Your task to perform on an android device: turn off data saver in the chrome app Image 0: 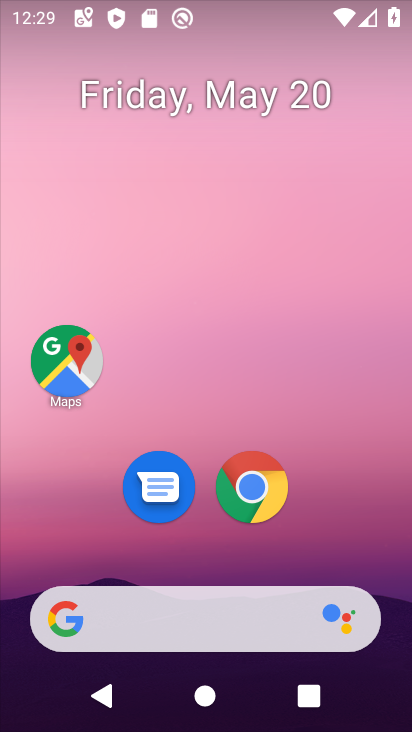
Step 0: click (262, 488)
Your task to perform on an android device: turn off data saver in the chrome app Image 1: 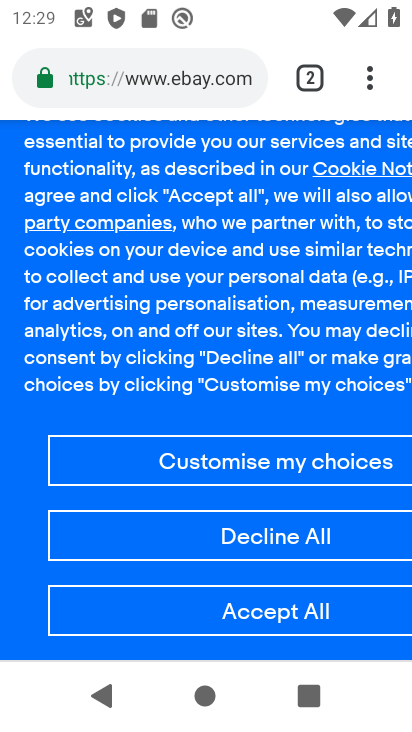
Step 1: drag from (371, 75) to (103, 535)
Your task to perform on an android device: turn off data saver in the chrome app Image 2: 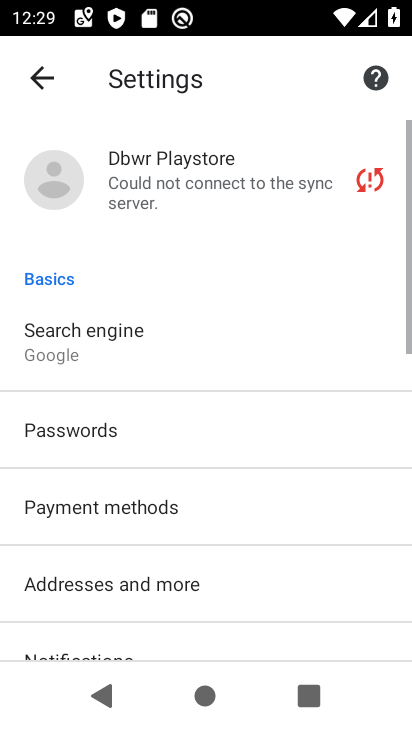
Step 2: drag from (160, 610) to (233, 137)
Your task to perform on an android device: turn off data saver in the chrome app Image 3: 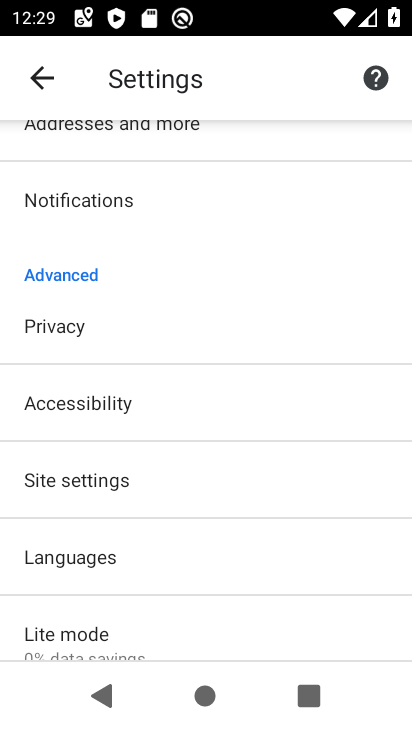
Step 3: click (83, 640)
Your task to perform on an android device: turn off data saver in the chrome app Image 4: 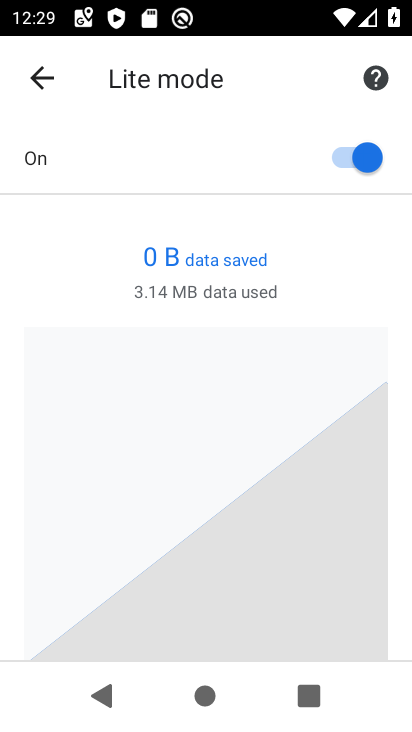
Step 4: click (356, 155)
Your task to perform on an android device: turn off data saver in the chrome app Image 5: 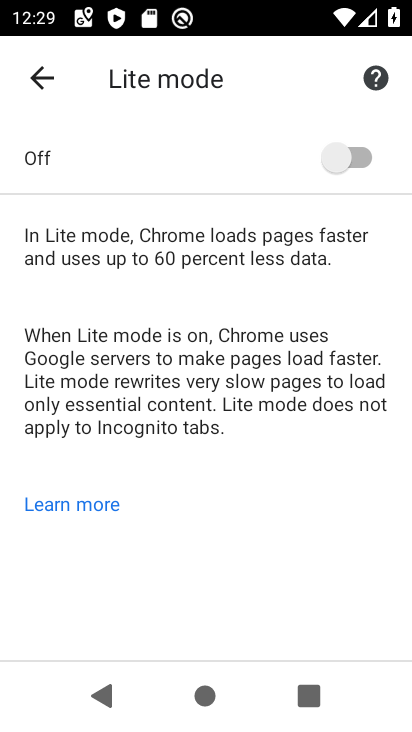
Step 5: task complete